Your task to perform on an android device: Open Yahoo.com Image 0: 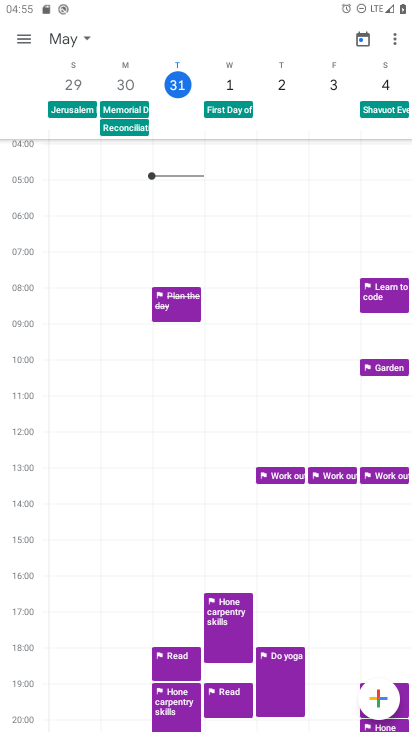
Step 0: press home button
Your task to perform on an android device: Open Yahoo.com Image 1: 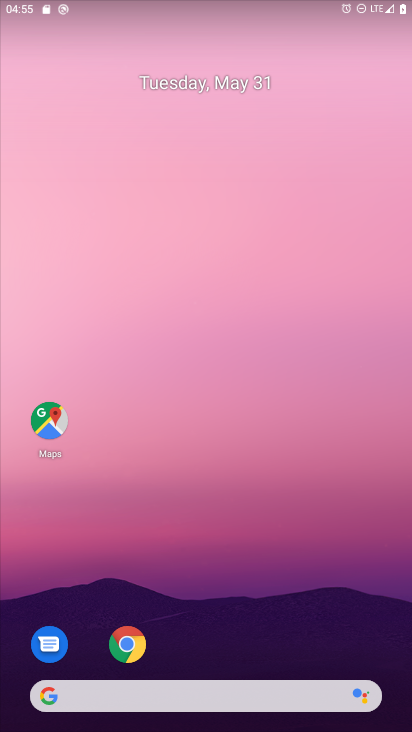
Step 1: drag from (254, 544) to (243, 54)
Your task to perform on an android device: Open Yahoo.com Image 2: 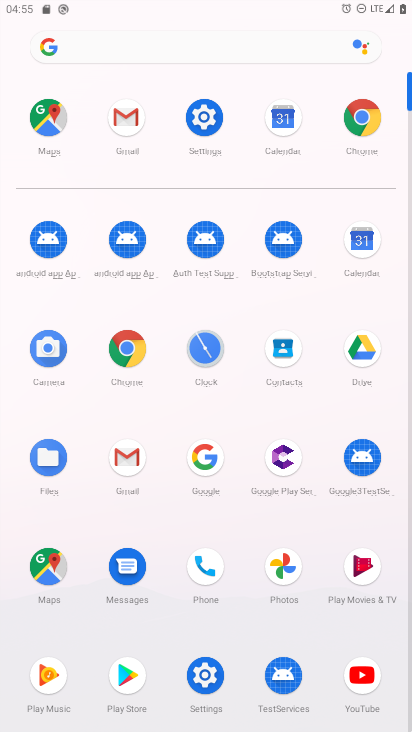
Step 2: click (358, 111)
Your task to perform on an android device: Open Yahoo.com Image 3: 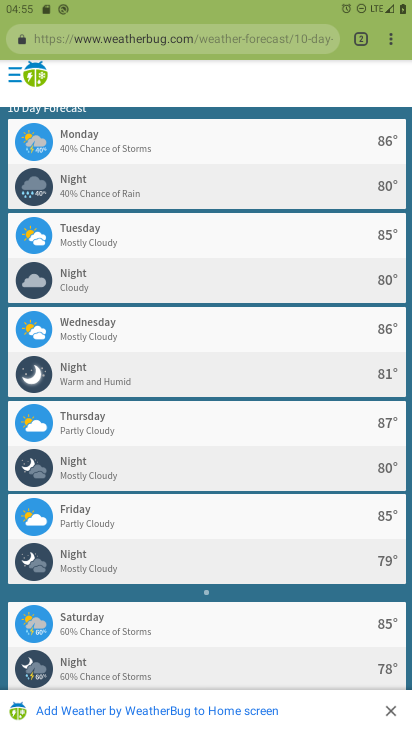
Step 3: click (119, 36)
Your task to perform on an android device: Open Yahoo.com Image 4: 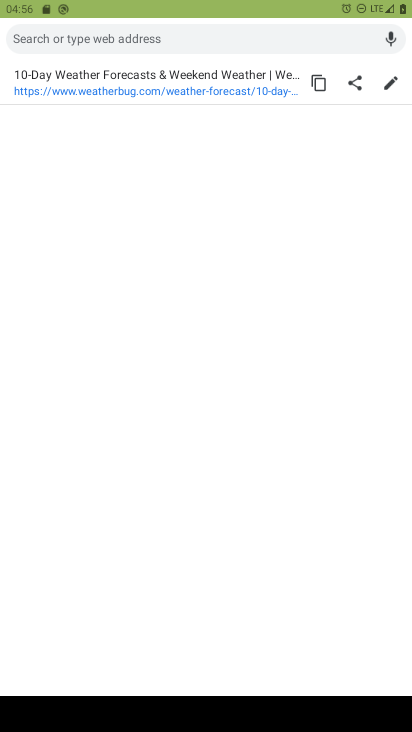
Step 4: type "yahoo.com"
Your task to perform on an android device: Open Yahoo.com Image 5: 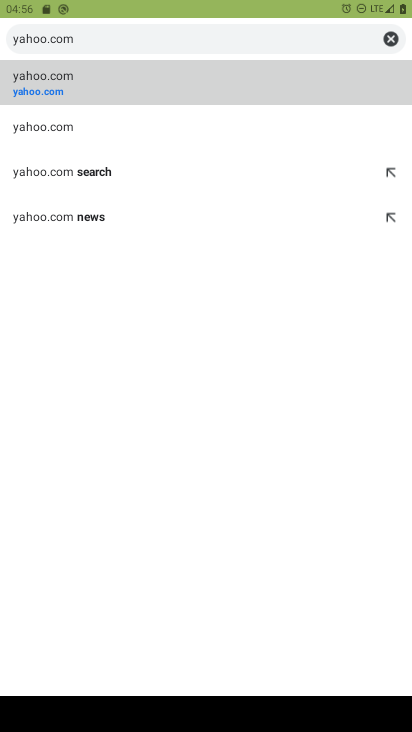
Step 5: click (47, 89)
Your task to perform on an android device: Open Yahoo.com Image 6: 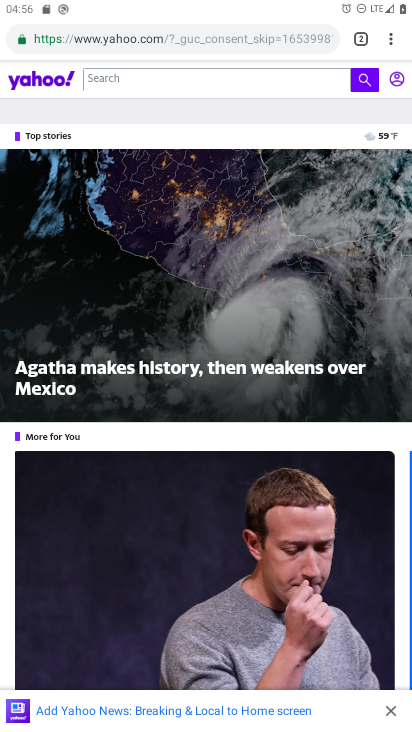
Step 6: task complete